Your task to perform on an android device: turn notification dots off Image 0: 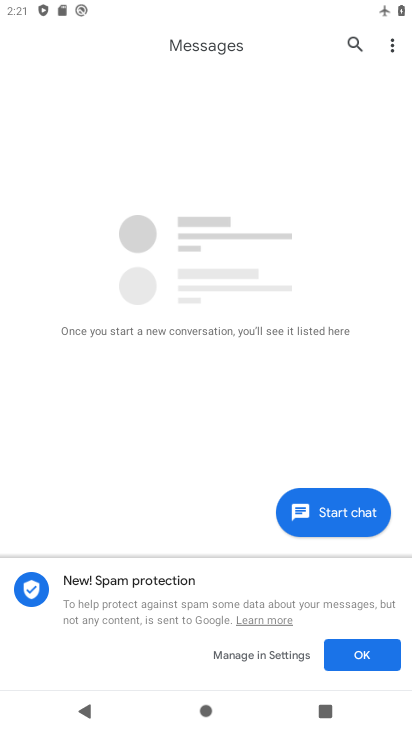
Step 0: press home button
Your task to perform on an android device: turn notification dots off Image 1: 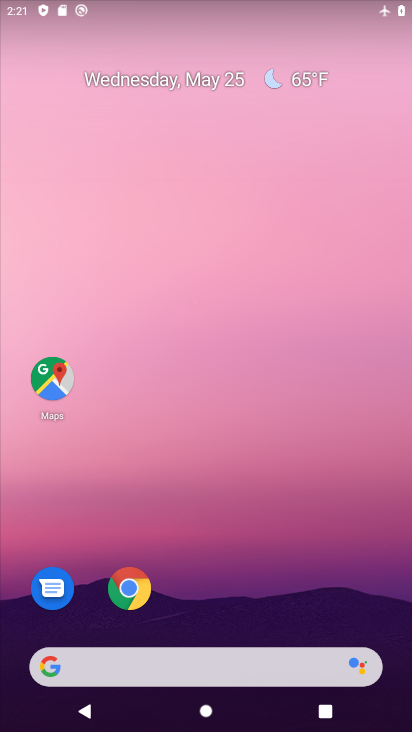
Step 1: drag from (176, 606) to (205, 220)
Your task to perform on an android device: turn notification dots off Image 2: 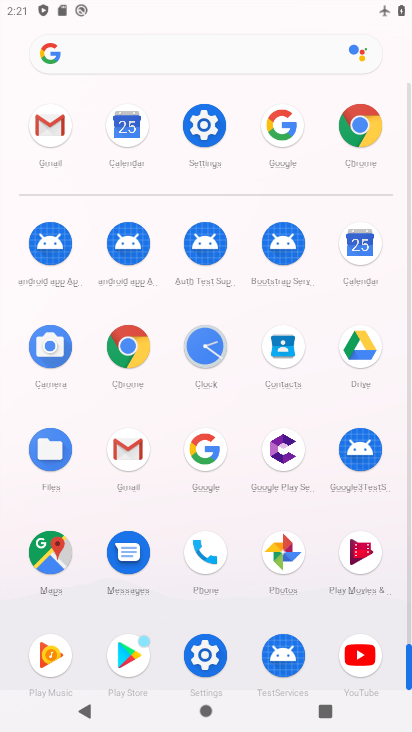
Step 2: click (205, 125)
Your task to perform on an android device: turn notification dots off Image 3: 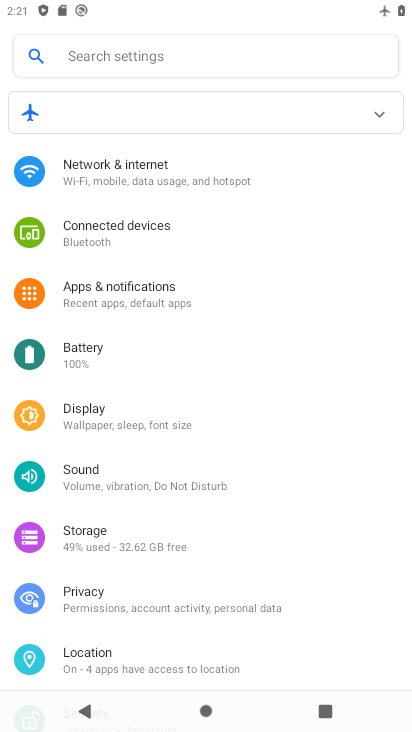
Step 3: click (150, 296)
Your task to perform on an android device: turn notification dots off Image 4: 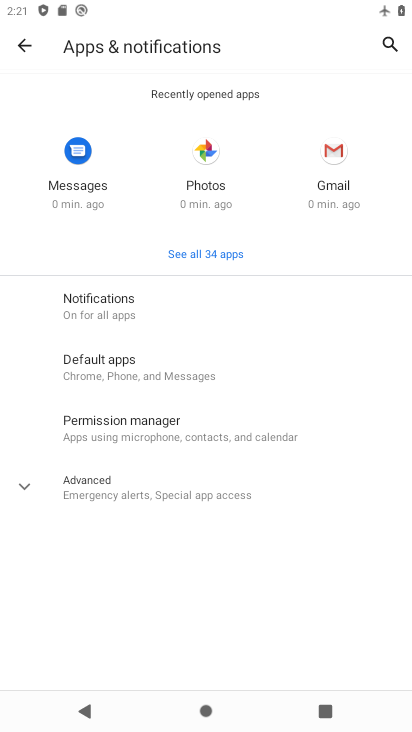
Step 4: click (110, 314)
Your task to perform on an android device: turn notification dots off Image 5: 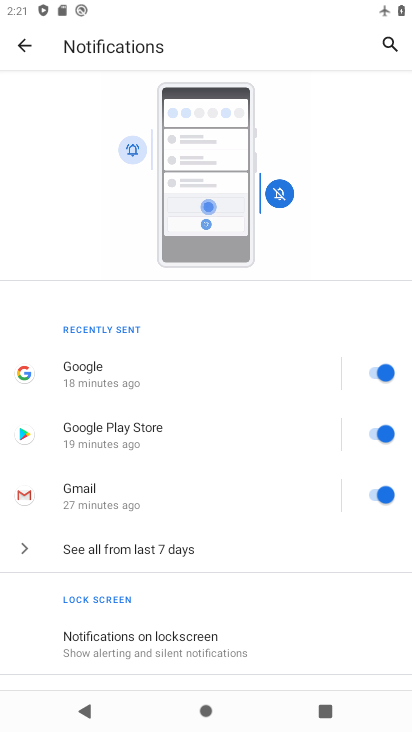
Step 5: drag from (117, 583) to (144, 215)
Your task to perform on an android device: turn notification dots off Image 6: 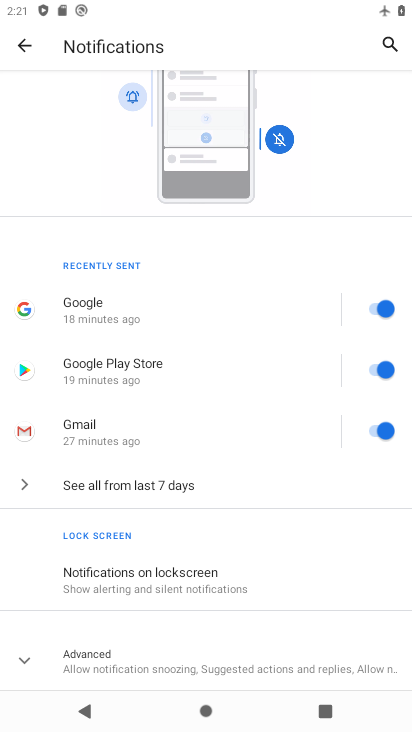
Step 6: click (19, 655)
Your task to perform on an android device: turn notification dots off Image 7: 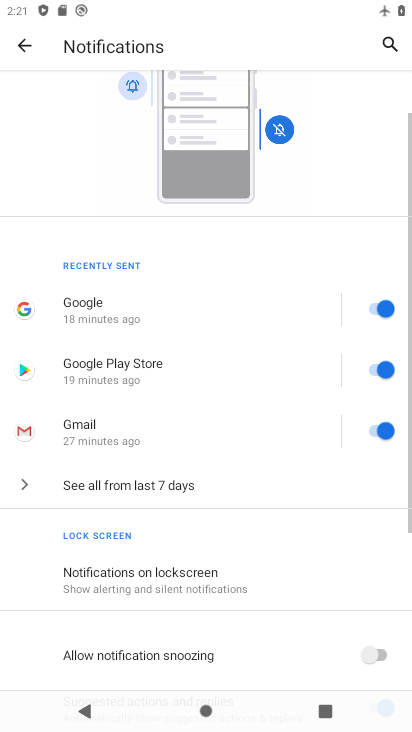
Step 7: drag from (102, 640) to (201, 316)
Your task to perform on an android device: turn notification dots off Image 8: 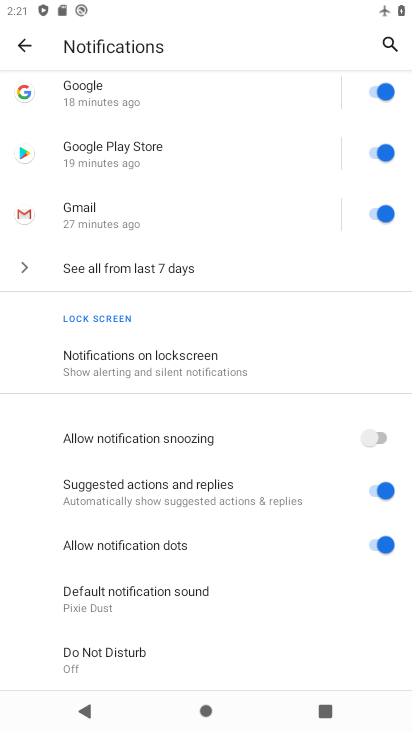
Step 8: click (369, 547)
Your task to perform on an android device: turn notification dots off Image 9: 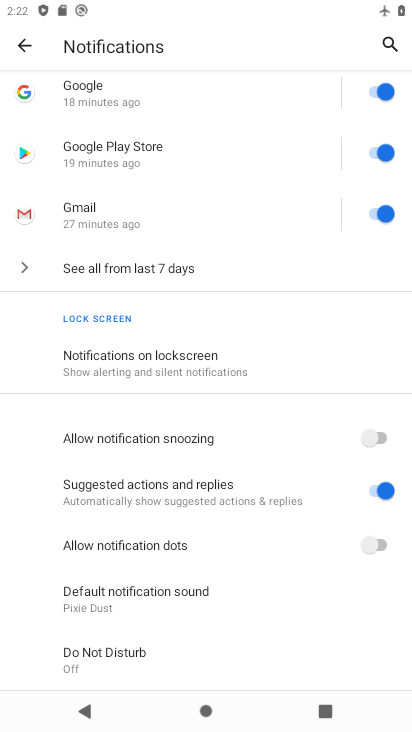
Step 9: task complete